Your task to perform on an android device: open a new tab in the chrome app Image 0: 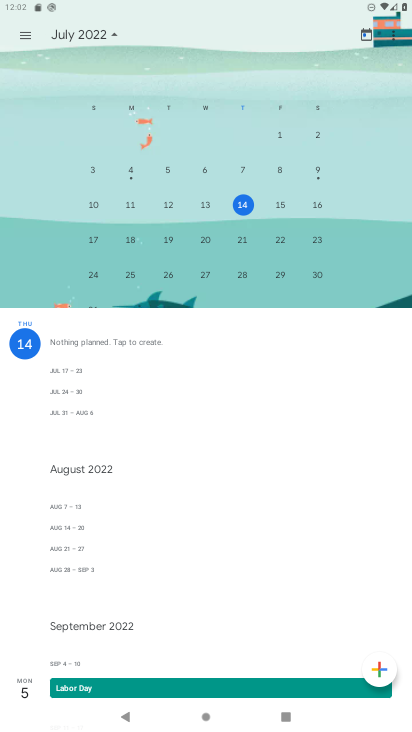
Step 0: press home button
Your task to perform on an android device: open a new tab in the chrome app Image 1: 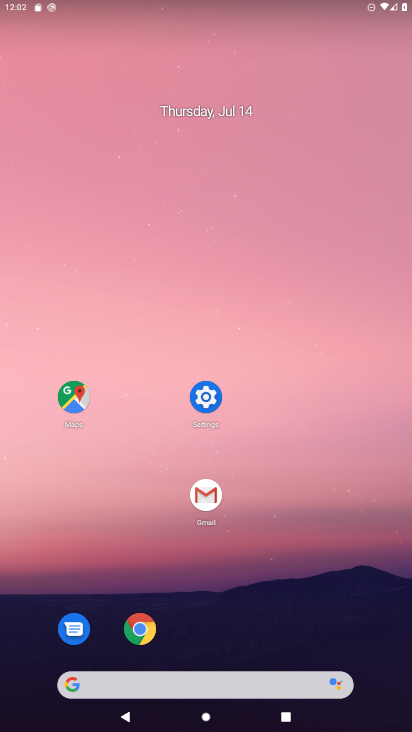
Step 1: click (145, 630)
Your task to perform on an android device: open a new tab in the chrome app Image 2: 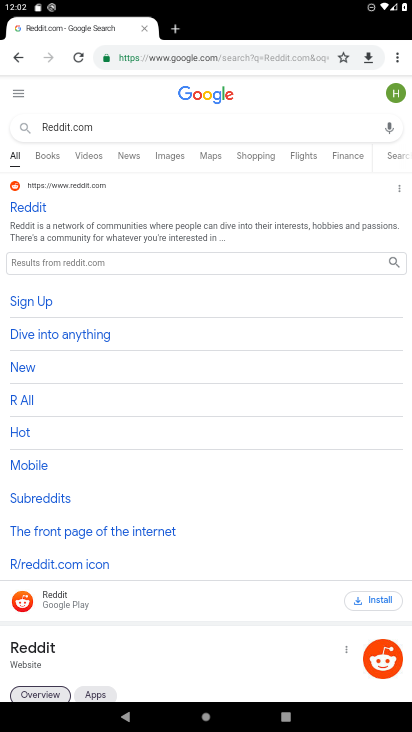
Step 2: click (396, 56)
Your task to perform on an android device: open a new tab in the chrome app Image 3: 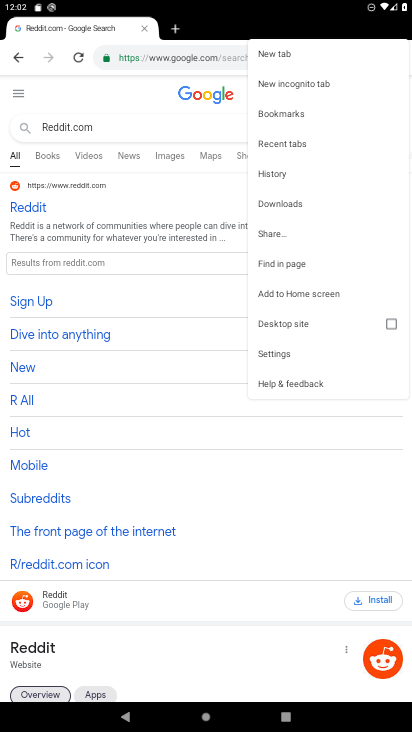
Step 3: click (265, 54)
Your task to perform on an android device: open a new tab in the chrome app Image 4: 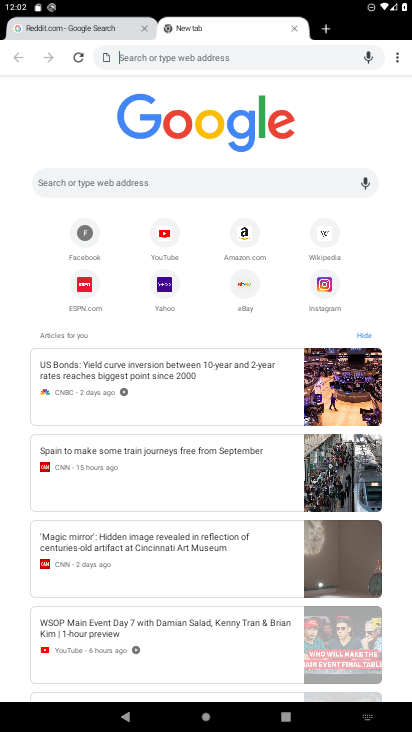
Step 4: task complete